Your task to perform on an android device: change the upload size in google photos Image 0: 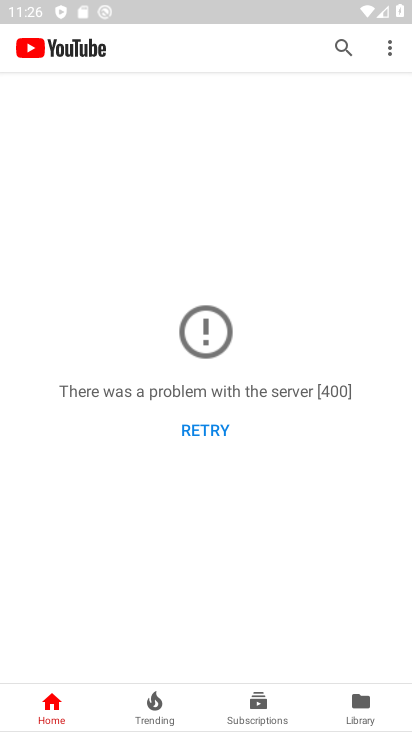
Step 0: press home button
Your task to perform on an android device: change the upload size in google photos Image 1: 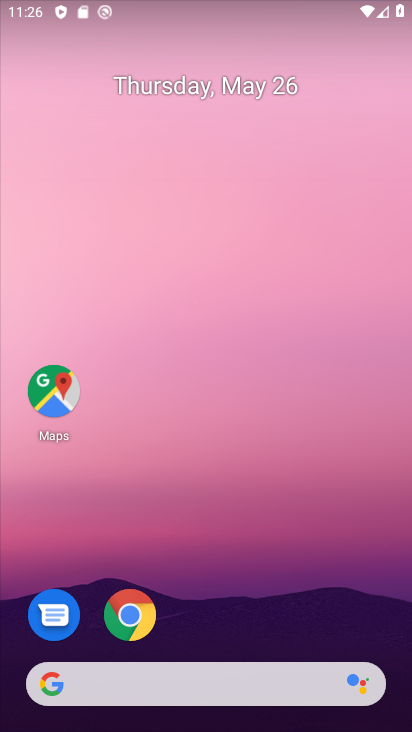
Step 1: drag from (193, 647) to (320, 125)
Your task to perform on an android device: change the upload size in google photos Image 2: 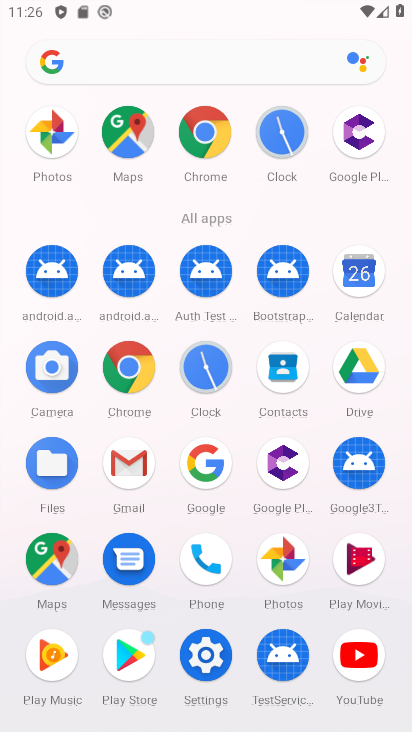
Step 2: click (295, 566)
Your task to perform on an android device: change the upload size in google photos Image 3: 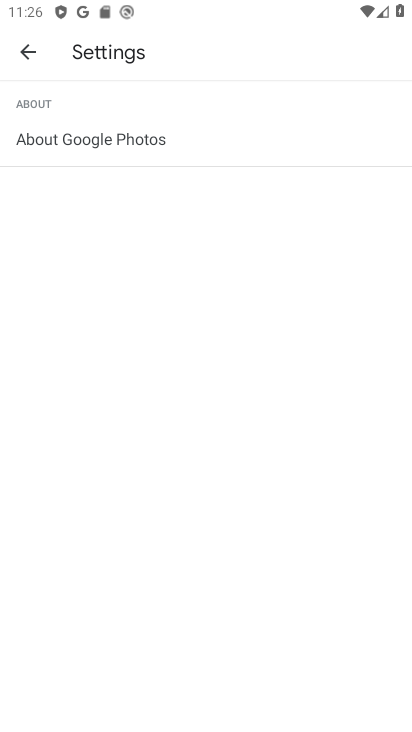
Step 3: click (11, 569)
Your task to perform on an android device: change the upload size in google photos Image 4: 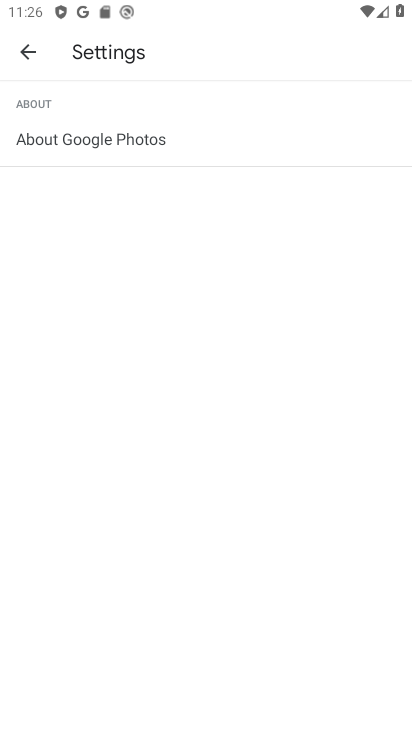
Step 4: press back button
Your task to perform on an android device: change the upload size in google photos Image 5: 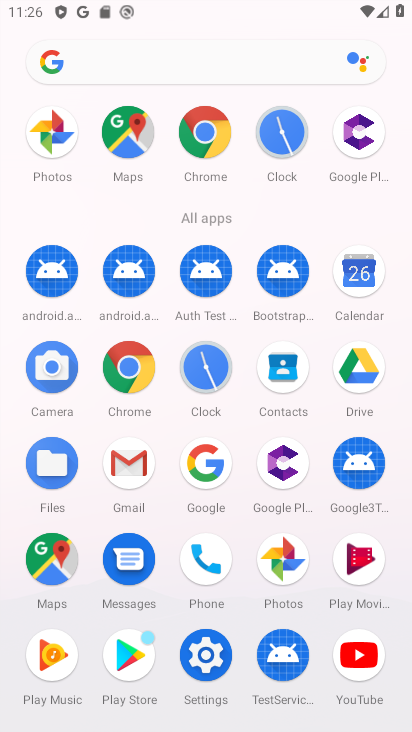
Step 5: click (294, 561)
Your task to perform on an android device: change the upload size in google photos Image 6: 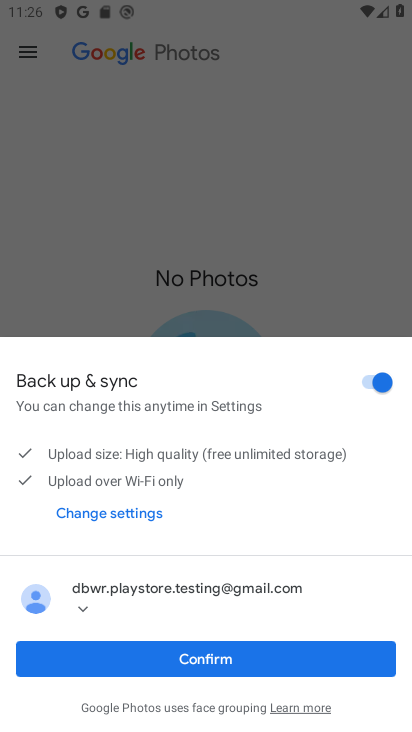
Step 6: click (214, 660)
Your task to perform on an android device: change the upload size in google photos Image 7: 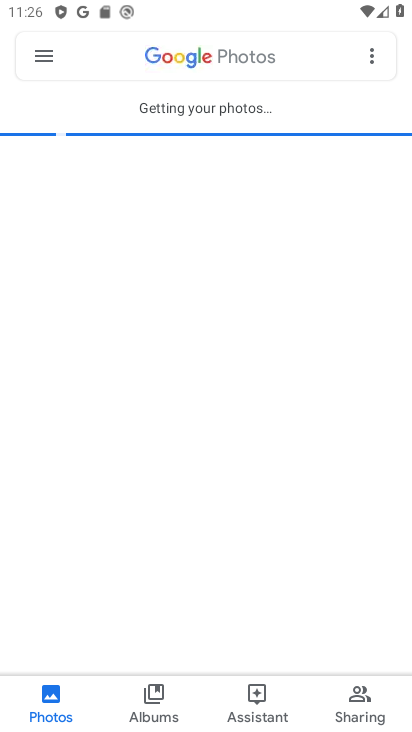
Step 7: click (37, 56)
Your task to perform on an android device: change the upload size in google photos Image 8: 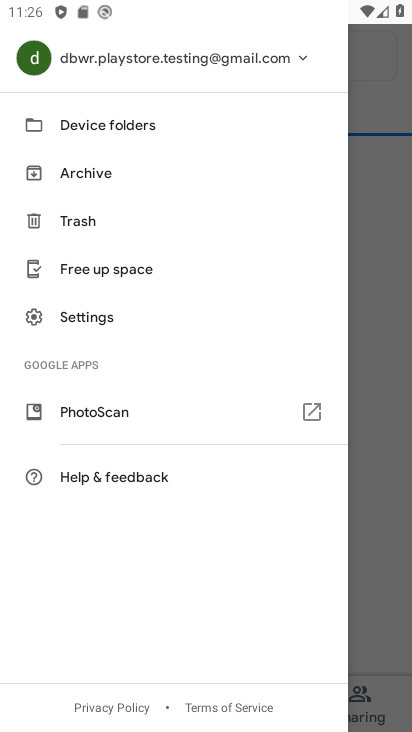
Step 8: click (152, 318)
Your task to perform on an android device: change the upload size in google photos Image 9: 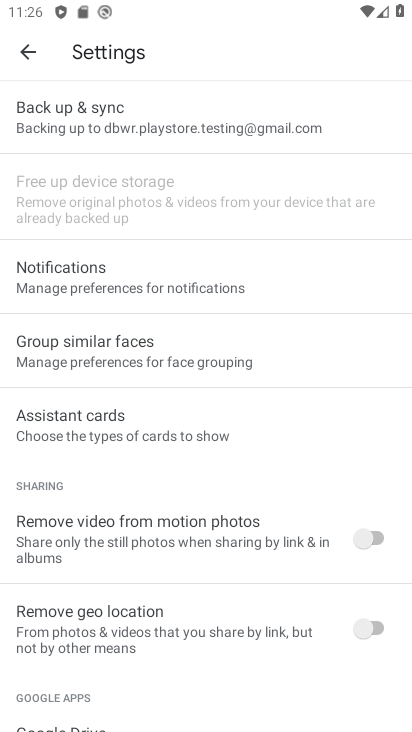
Step 9: click (171, 134)
Your task to perform on an android device: change the upload size in google photos Image 10: 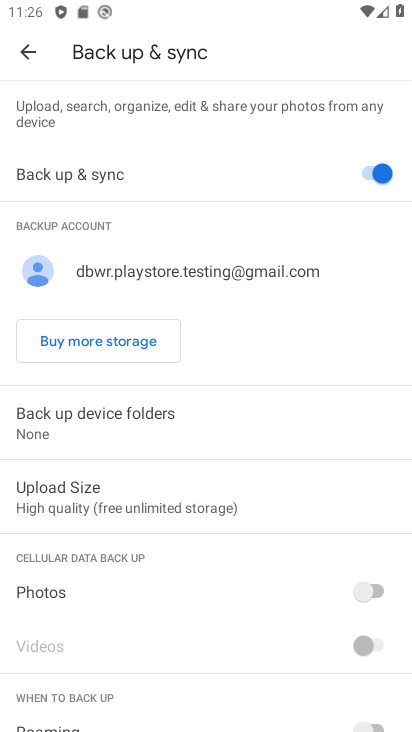
Step 10: click (165, 505)
Your task to perform on an android device: change the upload size in google photos Image 11: 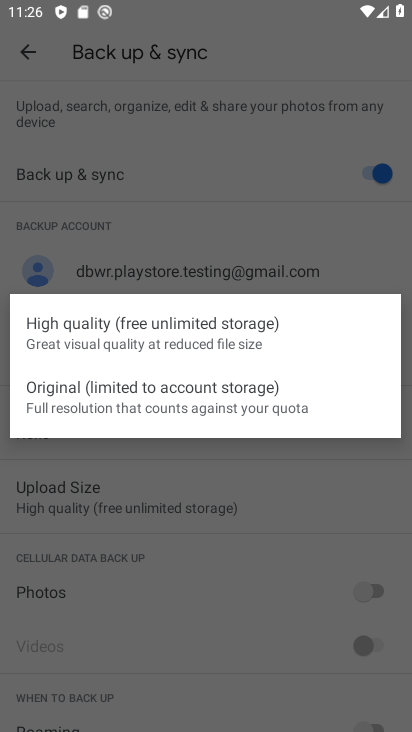
Step 11: click (126, 396)
Your task to perform on an android device: change the upload size in google photos Image 12: 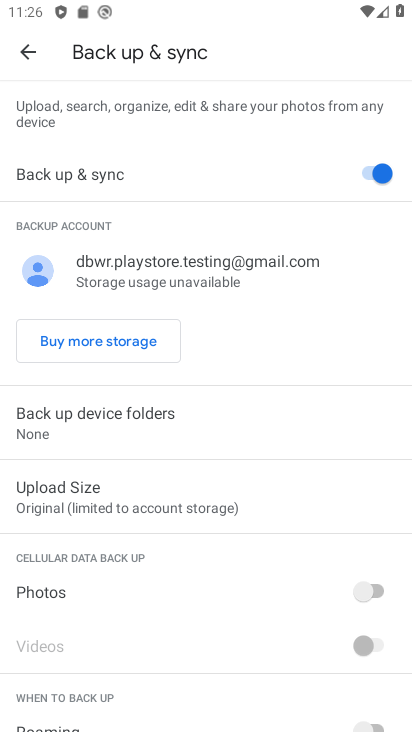
Step 12: task complete